Your task to perform on an android device: delete the emails in spam in the gmail app Image 0: 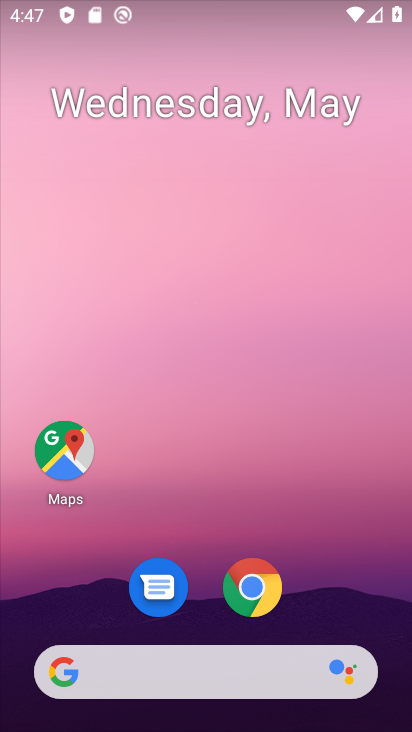
Step 0: drag from (370, 654) to (190, 136)
Your task to perform on an android device: delete the emails in spam in the gmail app Image 1: 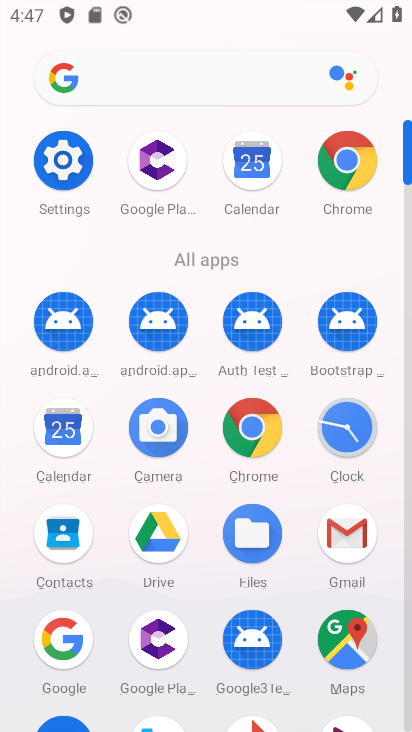
Step 1: click (337, 522)
Your task to perform on an android device: delete the emails in spam in the gmail app Image 2: 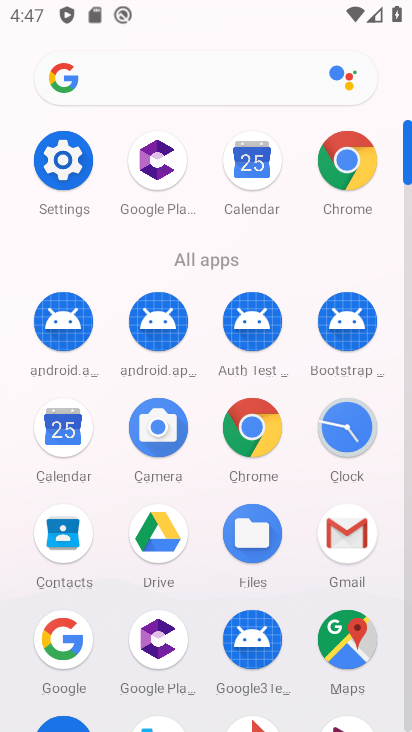
Step 2: click (337, 522)
Your task to perform on an android device: delete the emails in spam in the gmail app Image 3: 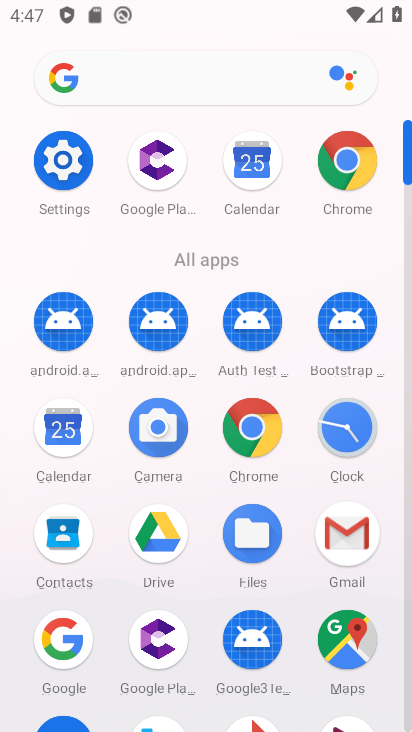
Step 3: click (337, 522)
Your task to perform on an android device: delete the emails in spam in the gmail app Image 4: 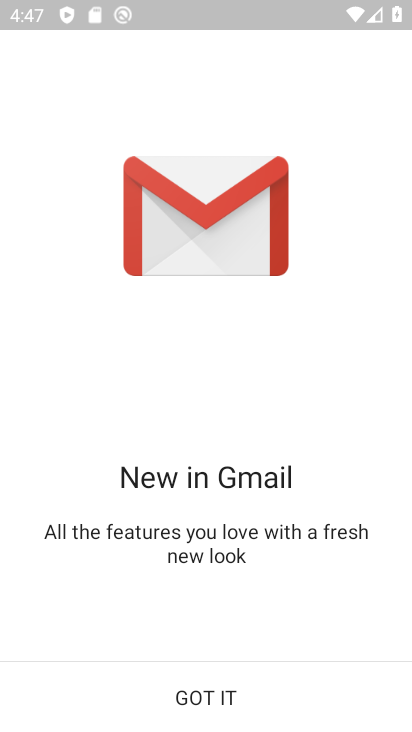
Step 4: click (178, 688)
Your task to perform on an android device: delete the emails in spam in the gmail app Image 5: 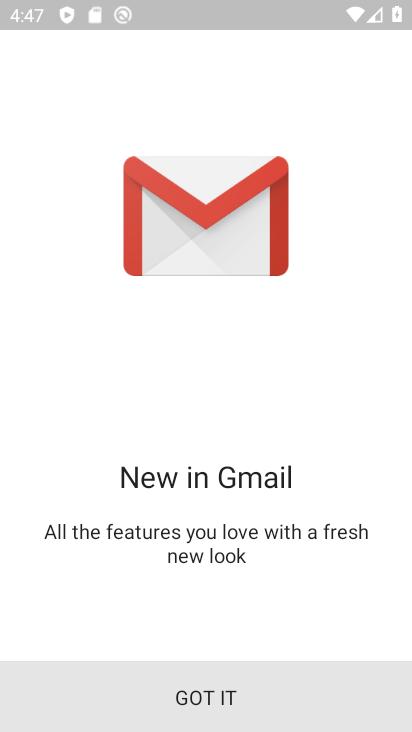
Step 5: click (184, 681)
Your task to perform on an android device: delete the emails in spam in the gmail app Image 6: 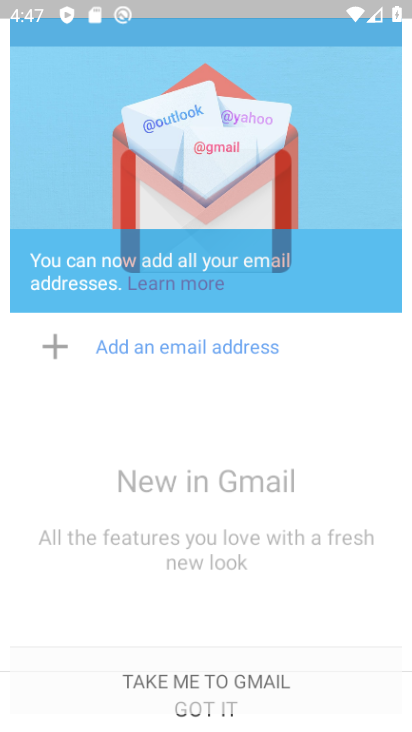
Step 6: click (196, 703)
Your task to perform on an android device: delete the emails in spam in the gmail app Image 7: 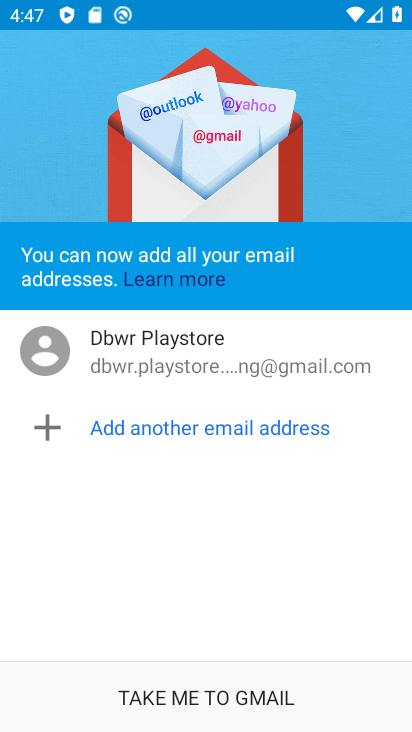
Step 7: click (197, 704)
Your task to perform on an android device: delete the emails in spam in the gmail app Image 8: 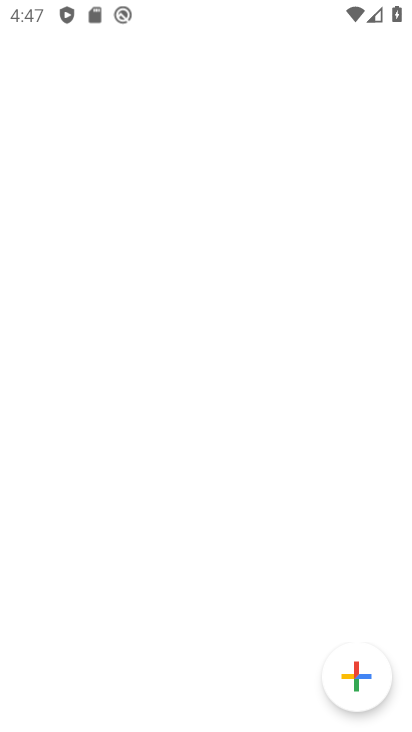
Step 8: click (200, 691)
Your task to perform on an android device: delete the emails in spam in the gmail app Image 9: 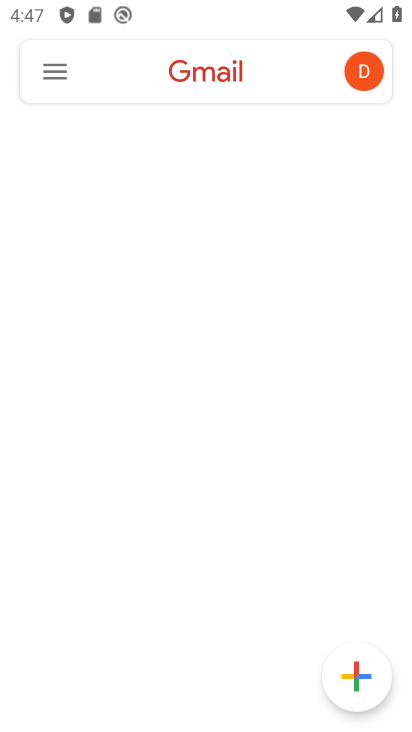
Step 9: click (200, 691)
Your task to perform on an android device: delete the emails in spam in the gmail app Image 10: 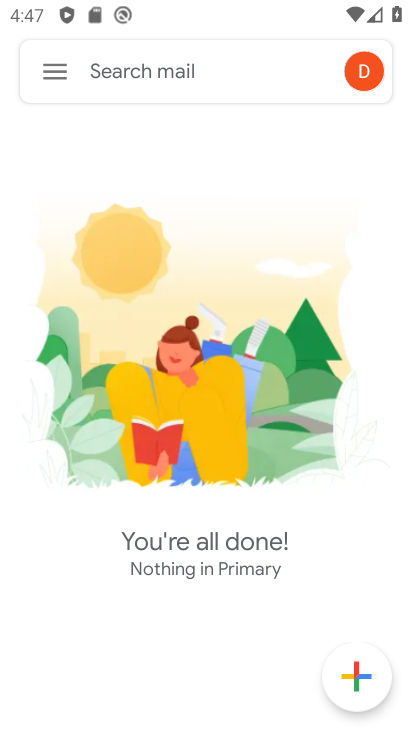
Step 10: click (48, 72)
Your task to perform on an android device: delete the emails in spam in the gmail app Image 11: 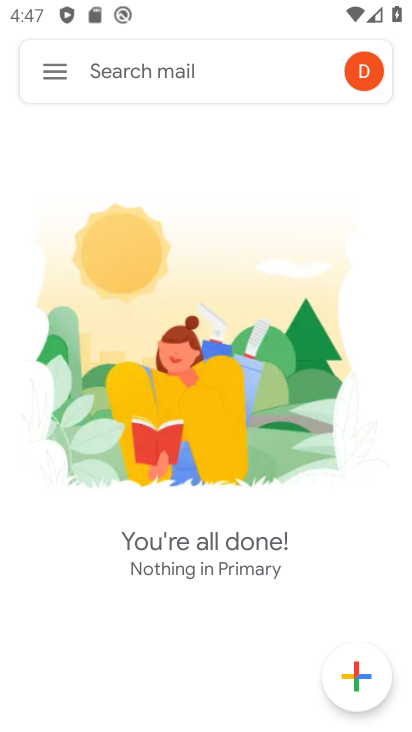
Step 11: click (50, 72)
Your task to perform on an android device: delete the emails in spam in the gmail app Image 12: 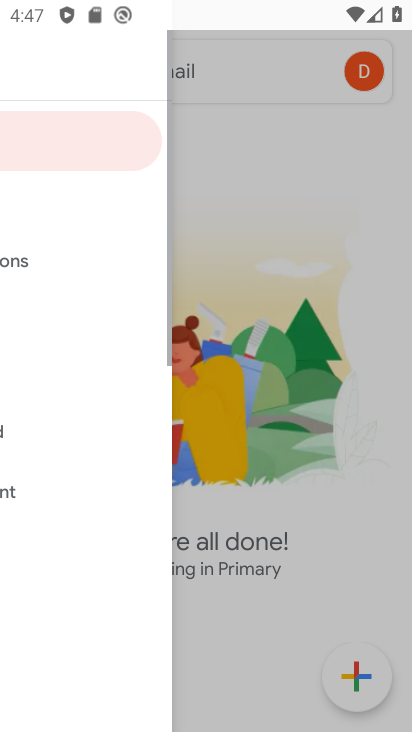
Step 12: click (50, 72)
Your task to perform on an android device: delete the emails in spam in the gmail app Image 13: 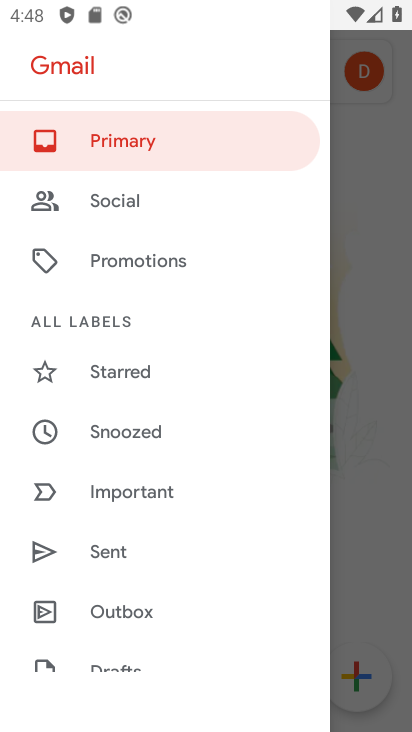
Step 13: drag from (151, 561) to (138, 260)
Your task to perform on an android device: delete the emails in spam in the gmail app Image 14: 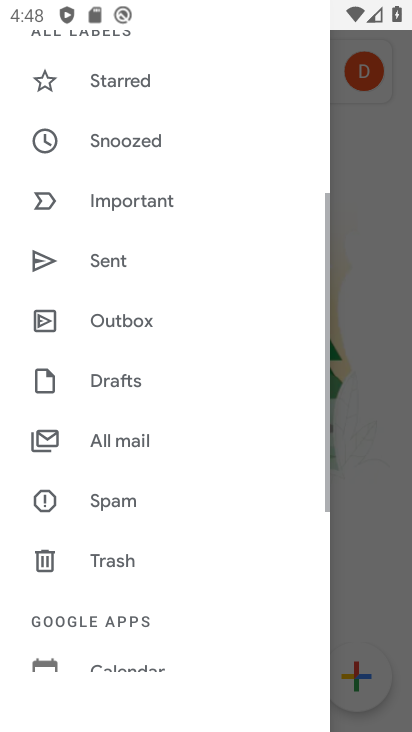
Step 14: drag from (141, 562) to (138, 334)
Your task to perform on an android device: delete the emails in spam in the gmail app Image 15: 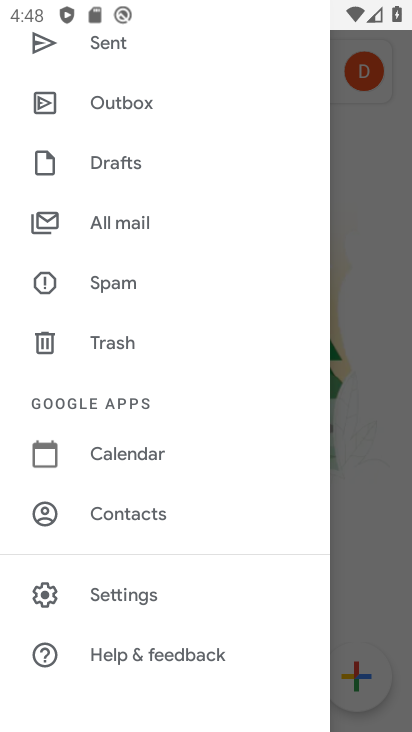
Step 15: click (95, 284)
Your task to perform on an android device: delete the emails in spam in the gmail app Image 16: 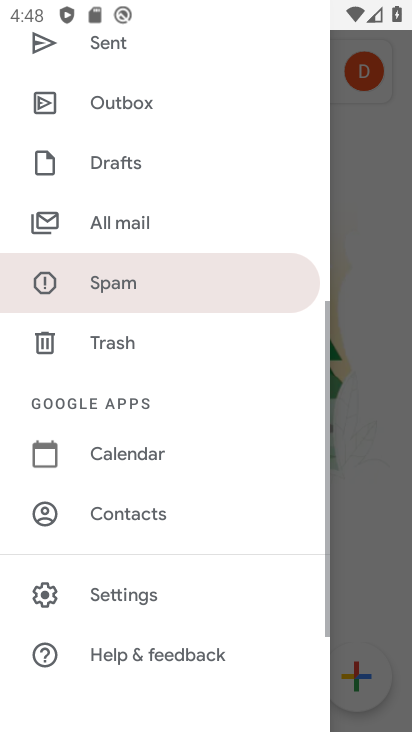
Step 16: click (100, 282)
Your task to perform on an android device: delete the emails in spam in the gmail app Image 17: 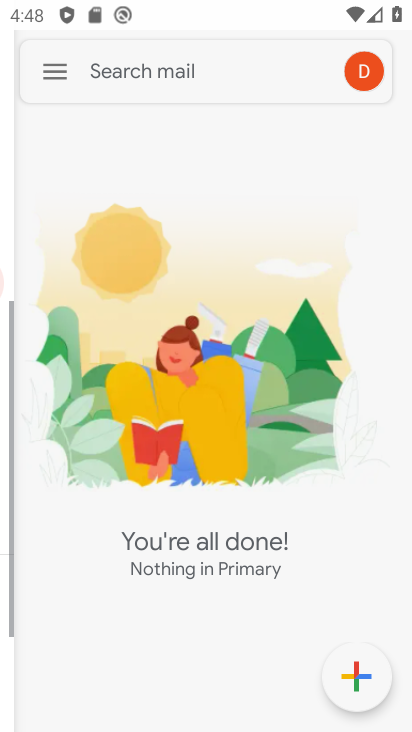
Step 17: click (100, 282)
Your task to perform on an android device: delete the emails in spam in the gmail app Image 18: 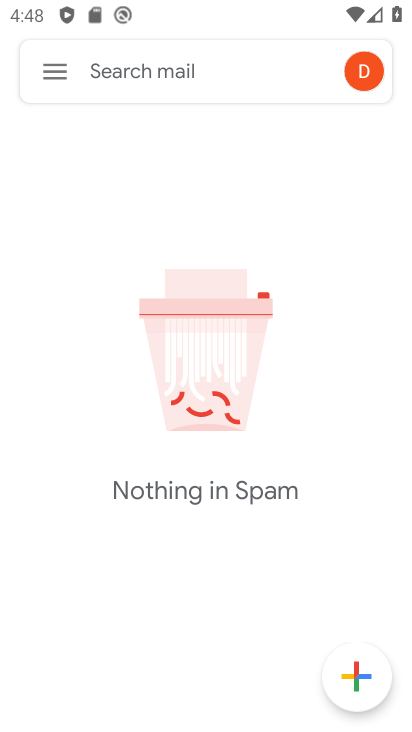
Step 18: click (53, 74)
Your task to perform on an android device: delete the emails in spam in the gmail app Image 19: 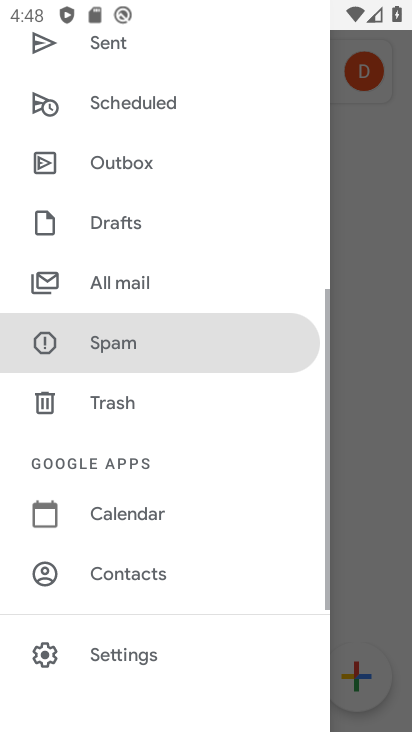
Step 19: click (131, 272)
Your task to perform on an android device: delete the emails in spam in the gmail app Image 20: 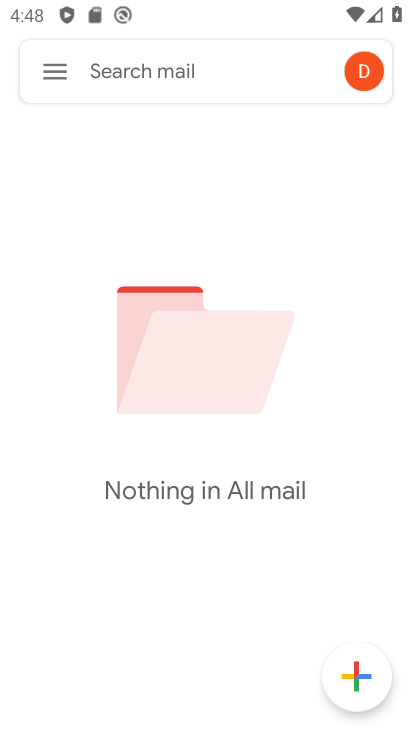
Step 20: task complete